Your task to perform on an android device: Open settings Image 0: 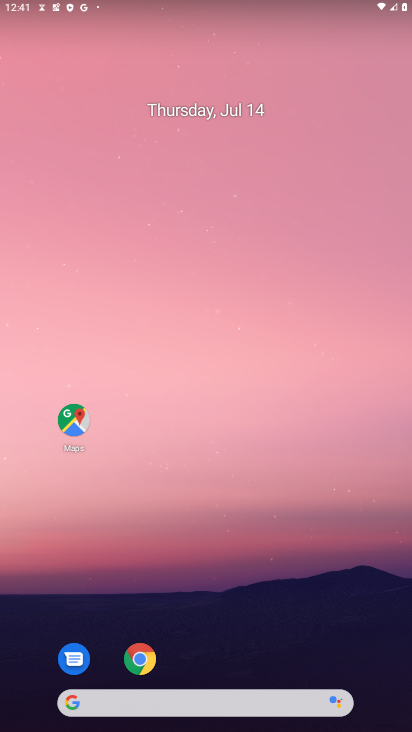
Step 0: drag from (66, 594) to (254, 97)
Your task to perform on an android device: Open settings Image 1: 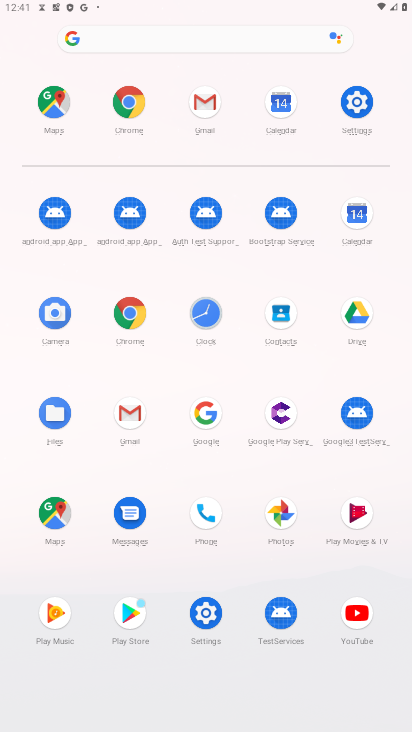
Step 1: click (202, 597)
Your task to perform on an android device: Open settings Image 2: 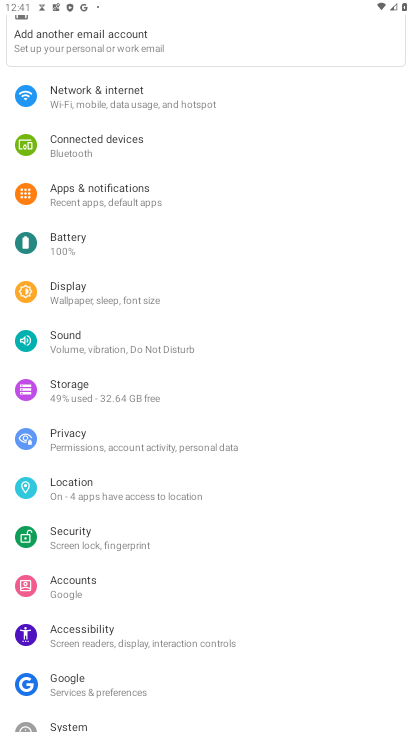
Step 2: task complete